Your task to perform on an android device: change the clock display to digital Image 0: 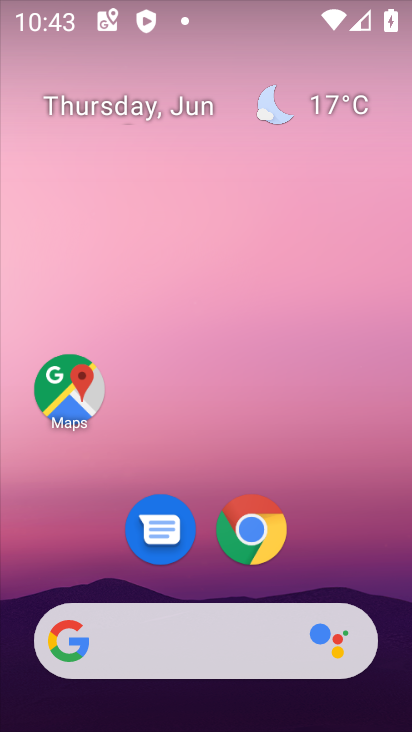
Step 0: drag from (314, 584) to (354, 2)
Your task to perform on an android device: change the clock display to digital Image 1: 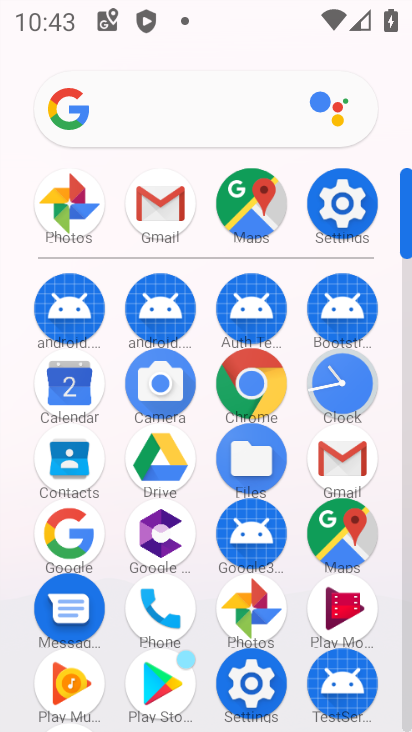
Step 1: click (338, 380)
Your task to perform on an android device: change the clock display to digital Image 2: 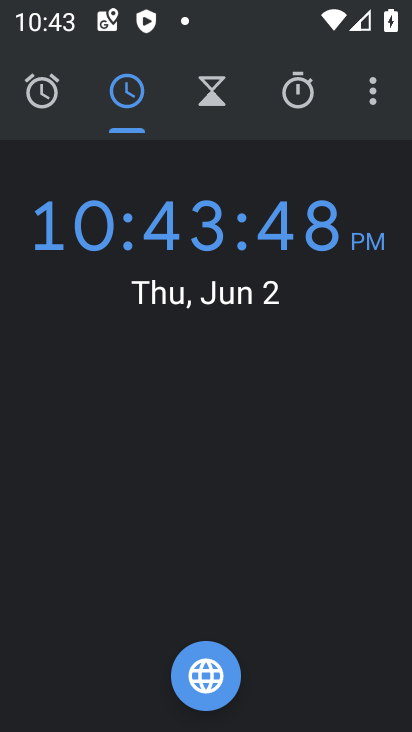
Step 2: click (368, 95)
Your task to perform on an android device: change the clock display to digital Image 3: 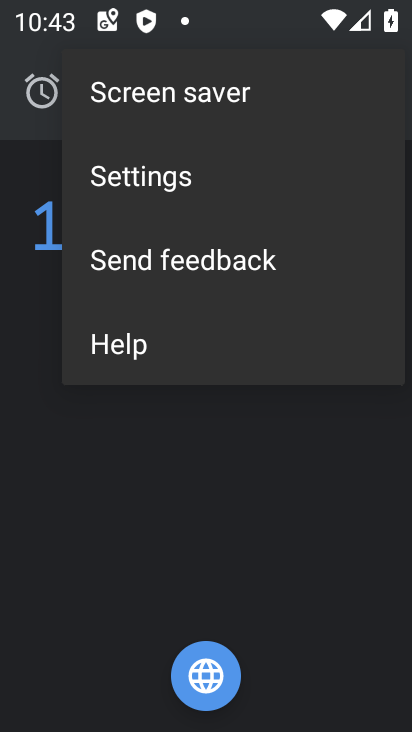
Step 3: click (135, 191)
Your task to perform on an android device: change the clock display to digital Image 4: 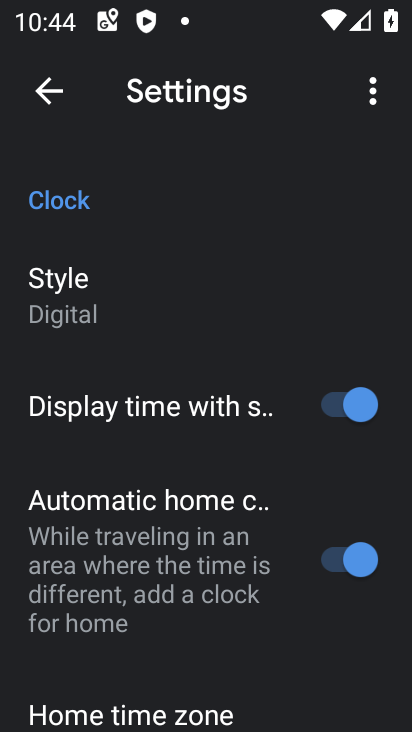
Step 4: click (59, 294)
Your task to perform on an android device: change the clock display to digital Image 5: 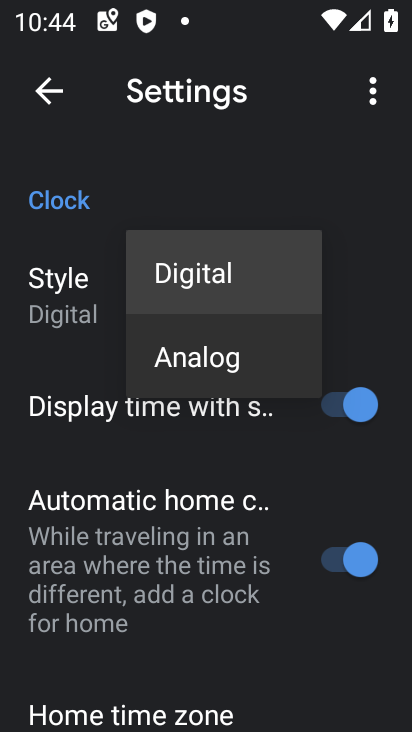
Step 5: click (203, 267)
Your task to perform on an android device: change the clock display to digital Image 6: 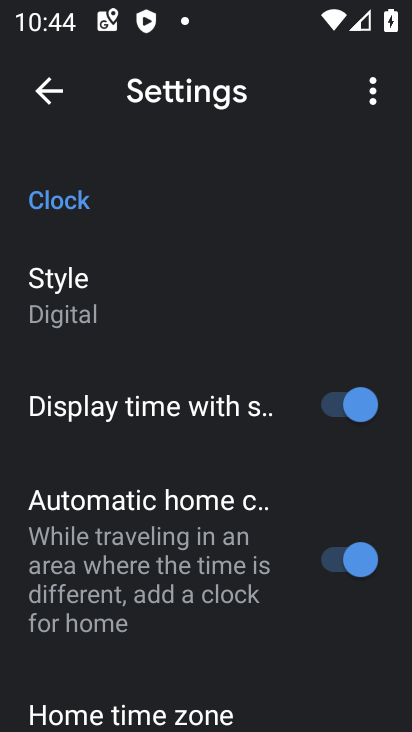
Step 6: task complete